Your task to perform on an android device: Go to internet settings Image 0: 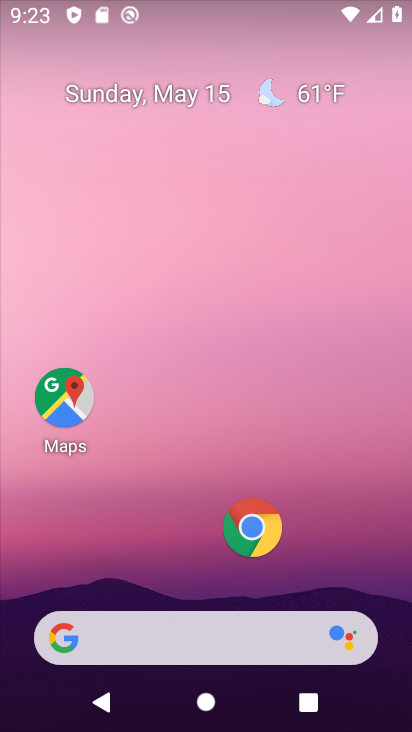
Step 0: press home button
Your task to perform on an android device: Go to internet settings Image 1: 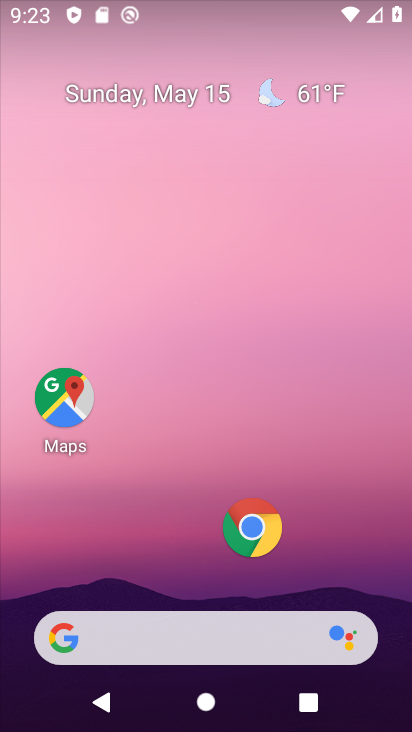
Step 1: drag from (198, 580) to (222, 30)
Your task to perform on an android device: Go to internet settings Image 2: 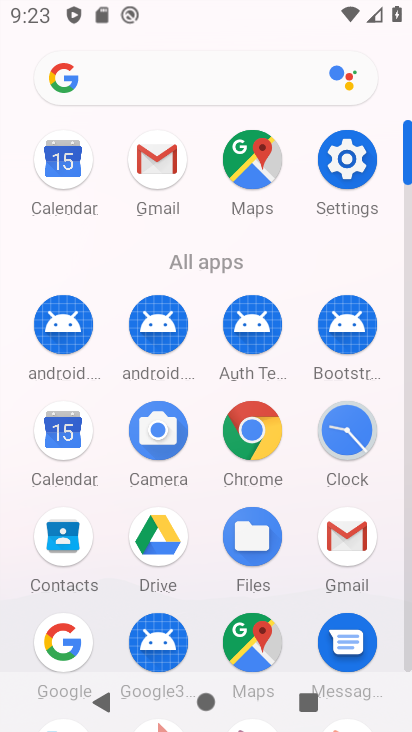
Step 2: click (345, 151)
Your task to perform on an android device: Go to internet settings Image 3: 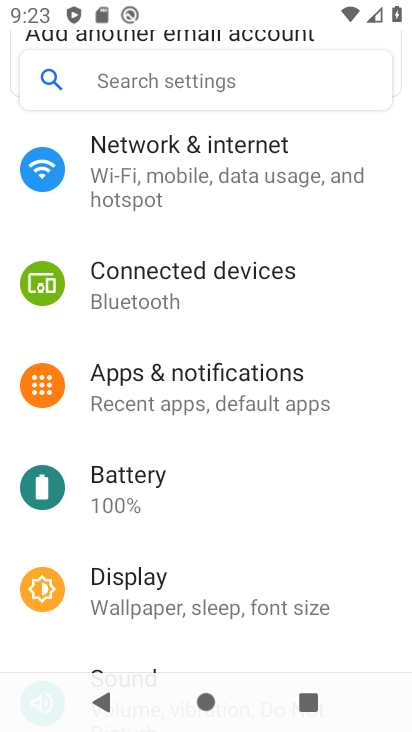
Step 3: click (197, 157)
Your task to perform on an android device: Go to internet settings Image 4: 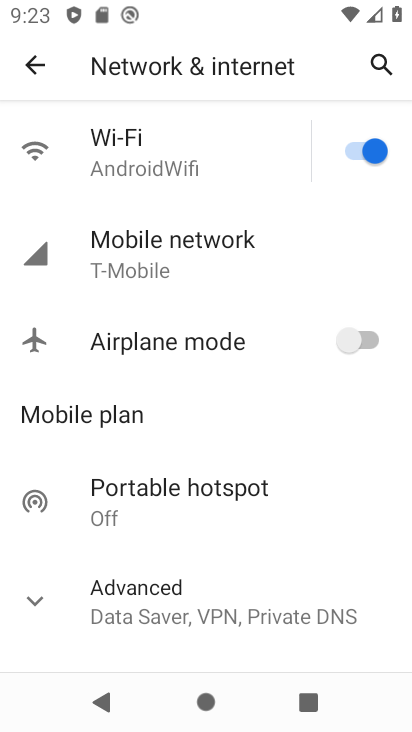
Step 4: click (34, 597)
Your task to perform on an android device: Go to internet settings Image 5: 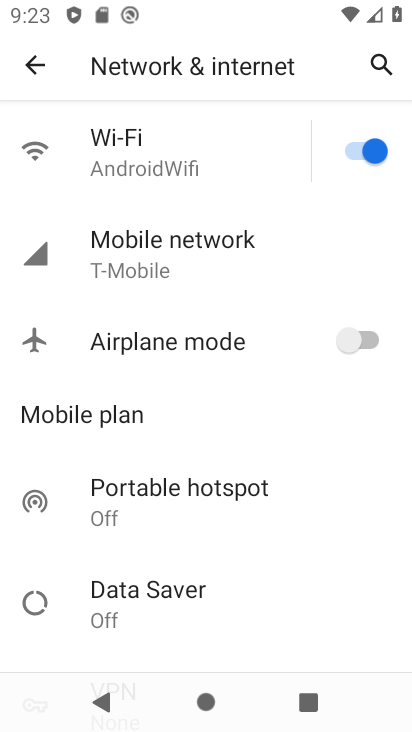
Step 5: task complete